Your task to perform on an android device: empty trash in google photos Image 0: 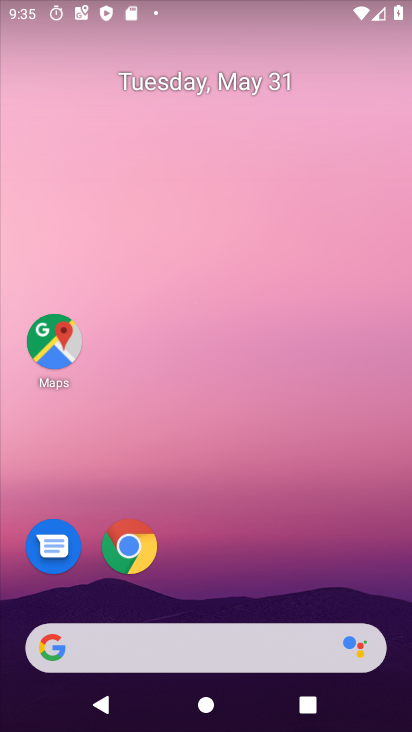
Step 0: drag from (194, 574) to (167, 44)
Your task to perform on an android device: empty trash in google photos Image 1: 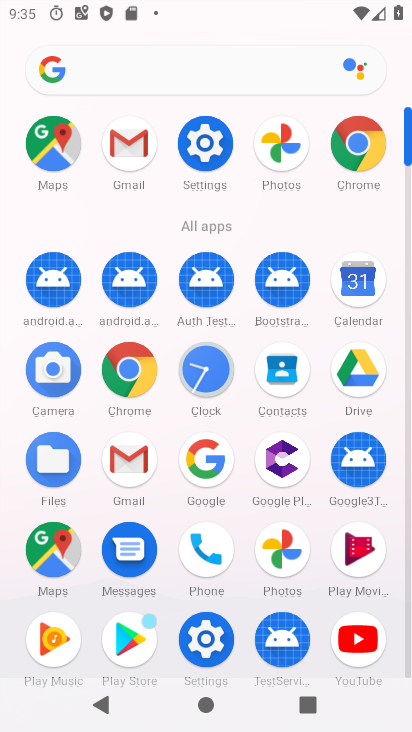
Step 1: click (279, 540)
Your task to perform on an android device: empty trash in google photos Image 2: 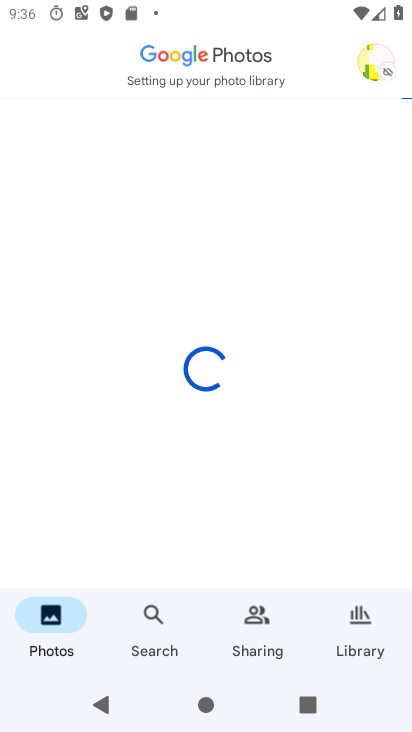
Step 2: click (355, 619)
Your task to perform on an android device: empty trash in google photos Image 3: 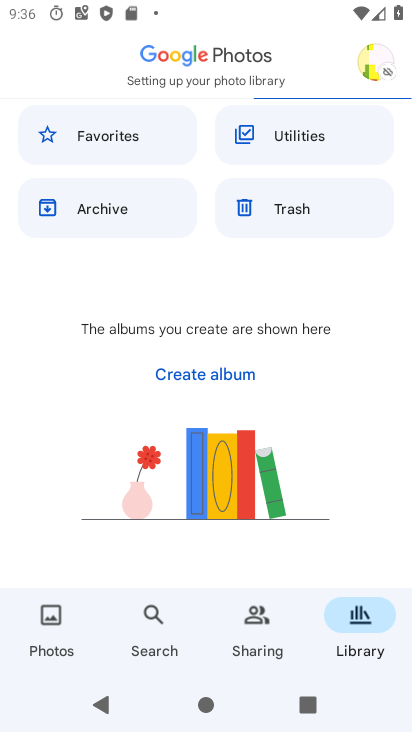
Step 3: click (279, 208)
Your task to perform on an android device: empty trash in google photos Image 4: 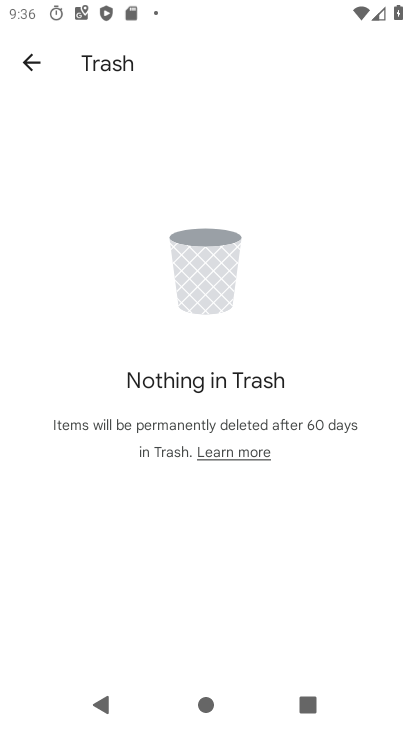
Step 4: task complete